Your task to perform on an android device: Show me recent news Image 0: 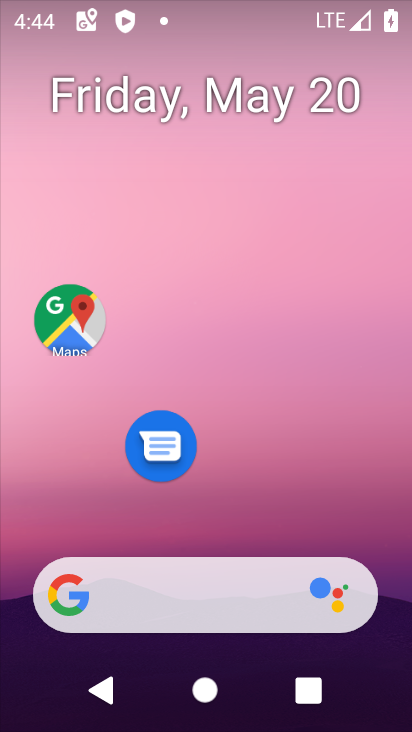
Step 0: drag from (232, 515) to (181, 2)
Your task to perform on an android device: Show me recent news Image 1: 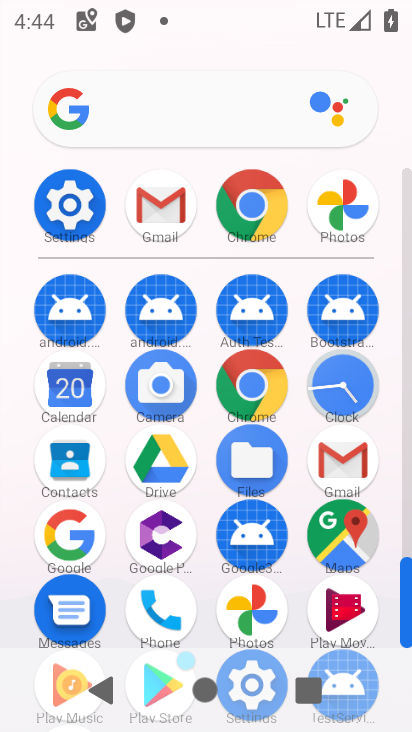
Step 1: drag from (222, 506) to (244, 191)
Your task to perform on an android device: Show me recent news Image 2: 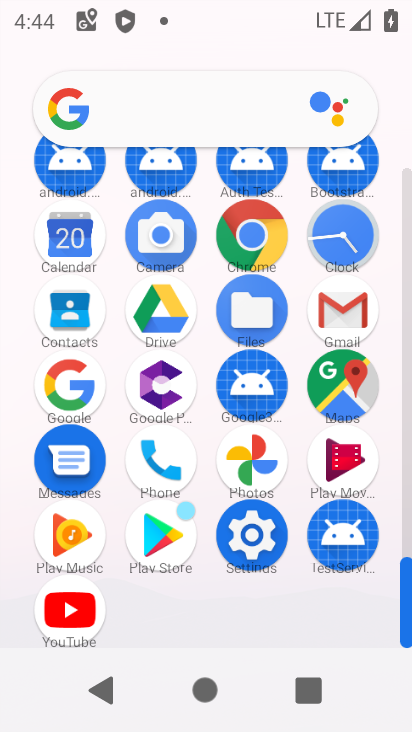
Step 2: click (199, 94)
Your task to perform on an android device: Show me recent news Image 3: 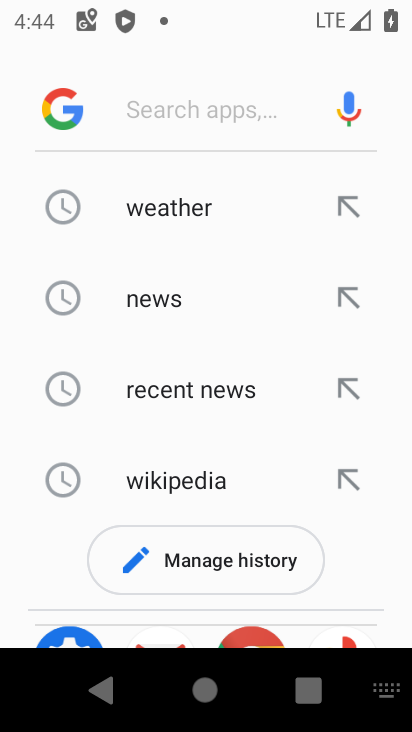
Step 3: type "recent news"
Your task to perform on an android device: Show me recent news Image 4: 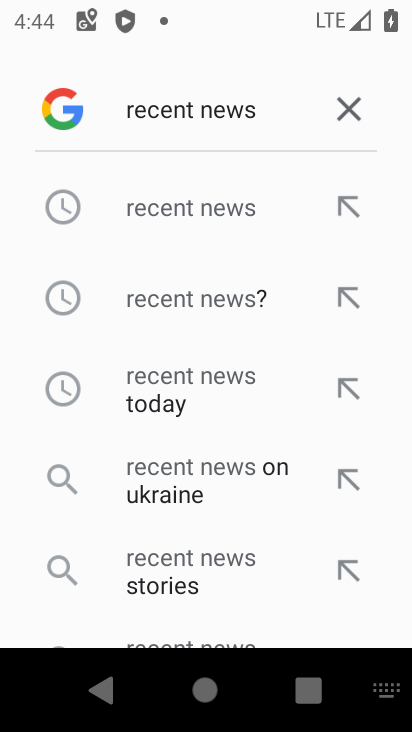
Step 4: click (240, 214)
Your task to perform on an android device: Show me recent news Image 5: 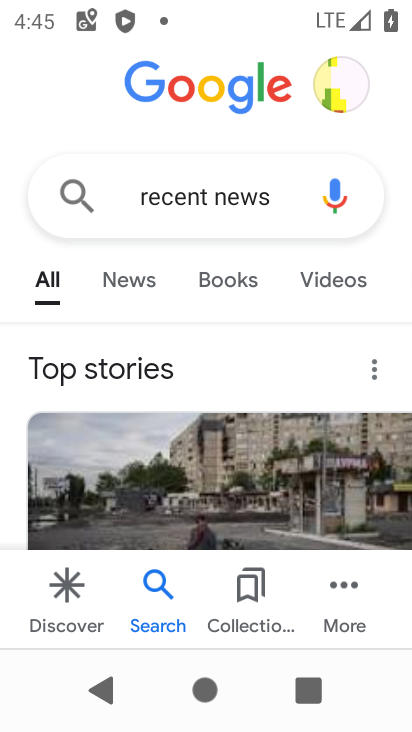
Step 5: task complete